Your task to perform on an android device: Show the shopping cart on amazon. Add bose soundlink to the cart on amazon, then select checkout. Image 0: 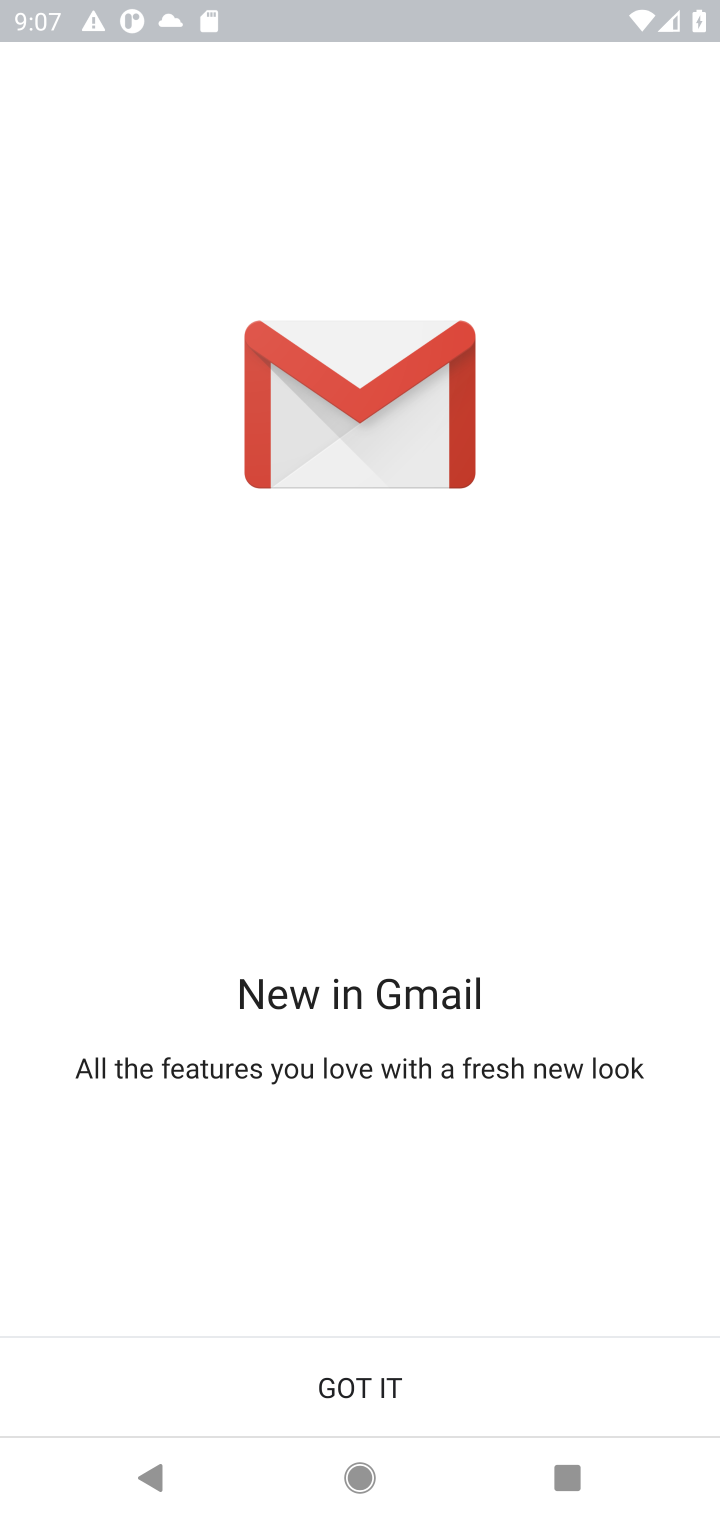
Step 0: press home button
Your task to perform on an android device: Show the shopping cart on amazon. Add bose soundlink to the cart on amazon, then select checkout. Image 1: 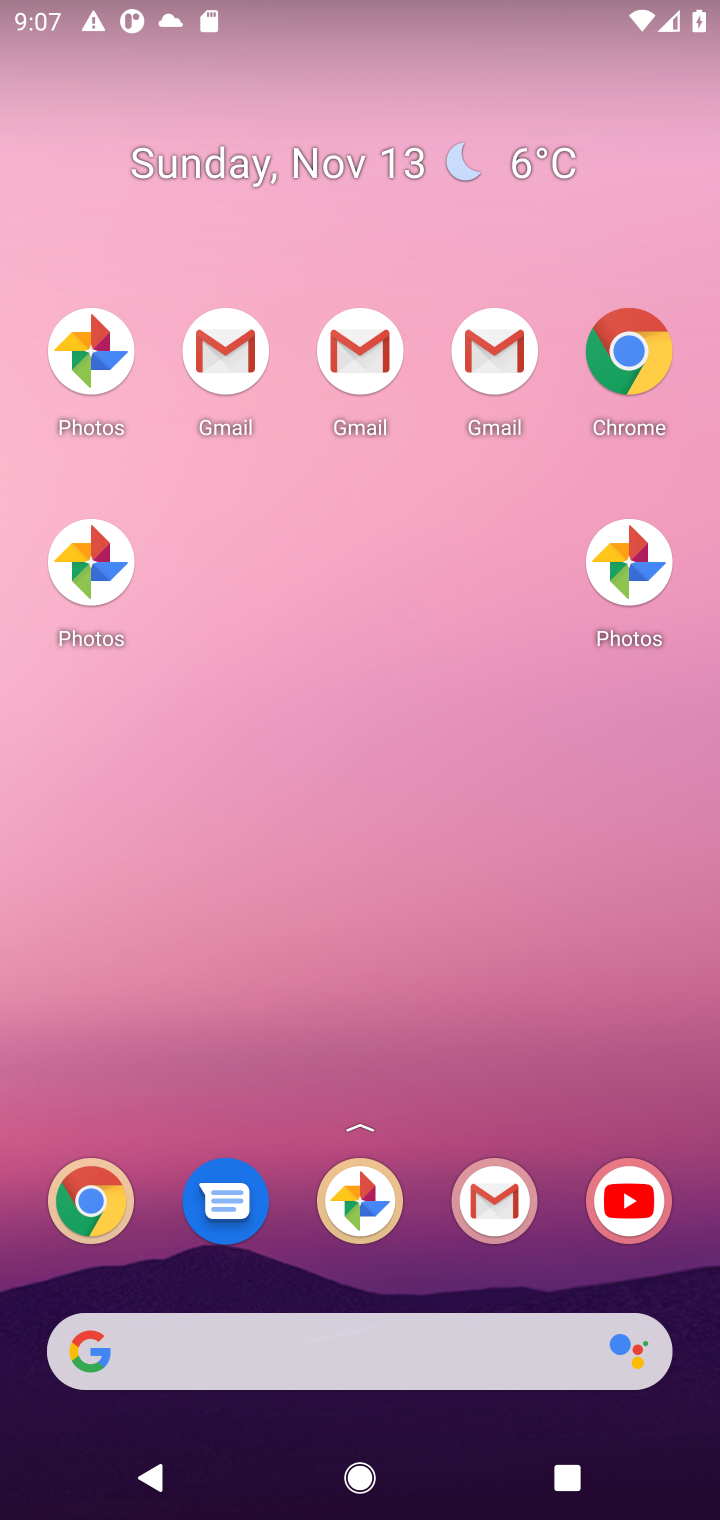
Step 1: drag from (431, 1270) to (423, 366)
Your task to perform on an android device: Show the shopping cart on amazon. Add bose soundlink to the cart on amazon, then select checkout. Image 2: 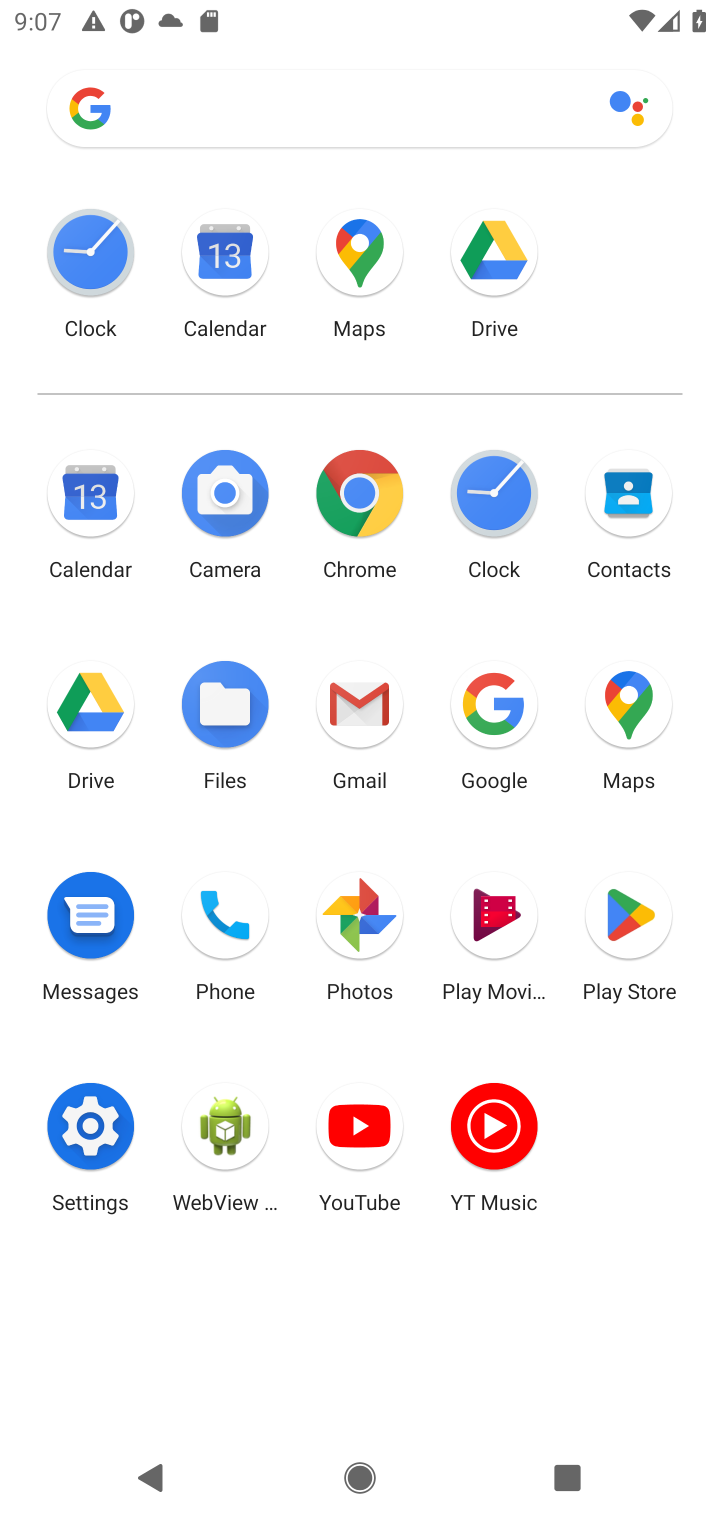
Step 2: click (348, 488)
Your task to perform on an android device: Show the shopping cart on amazon. Add bose soundlink to the cart on amazon, then select checkout. Image 3: 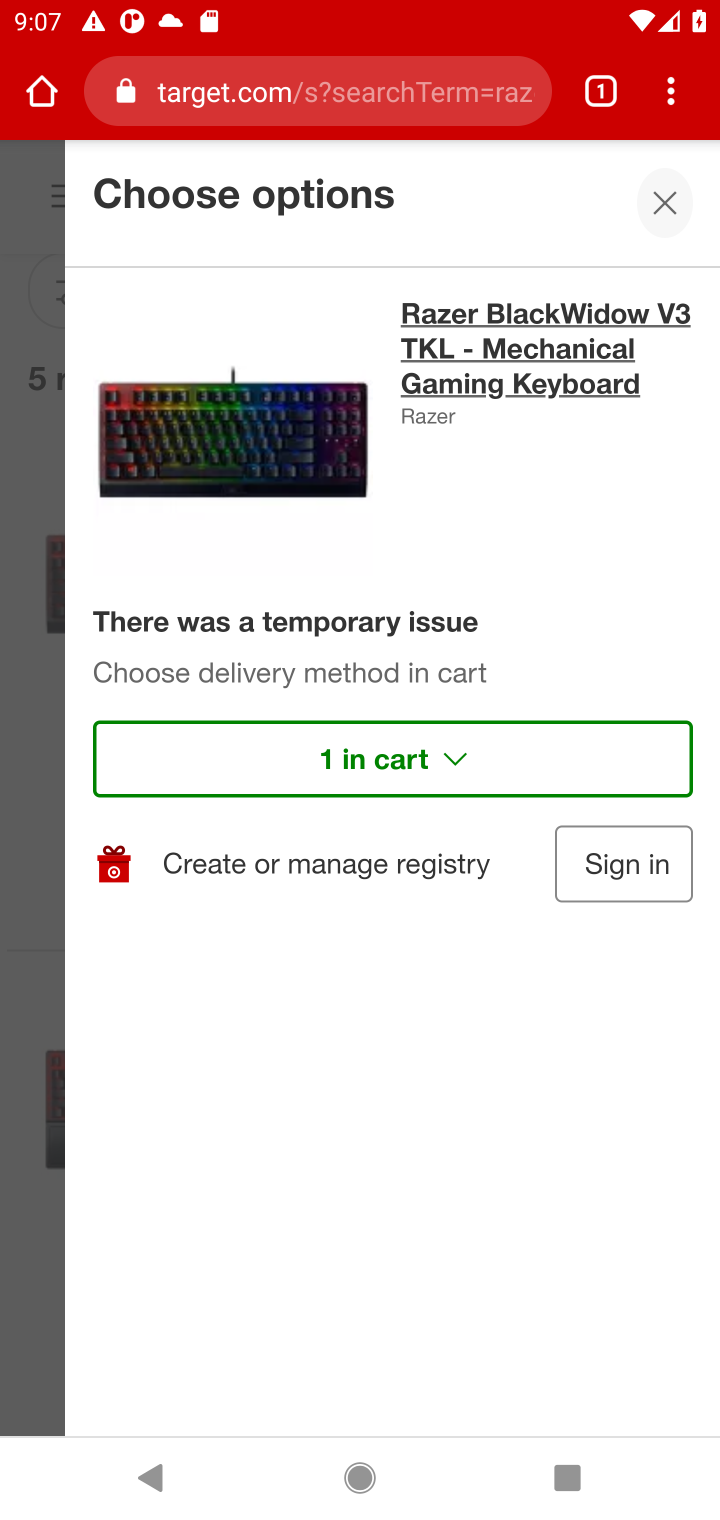
Step 3: click (367, 90)
Your task to perform on an android device: Show the shopping cart on amazon. Add bose soundlink to the cart on amazon, then select checkout. Image 4: 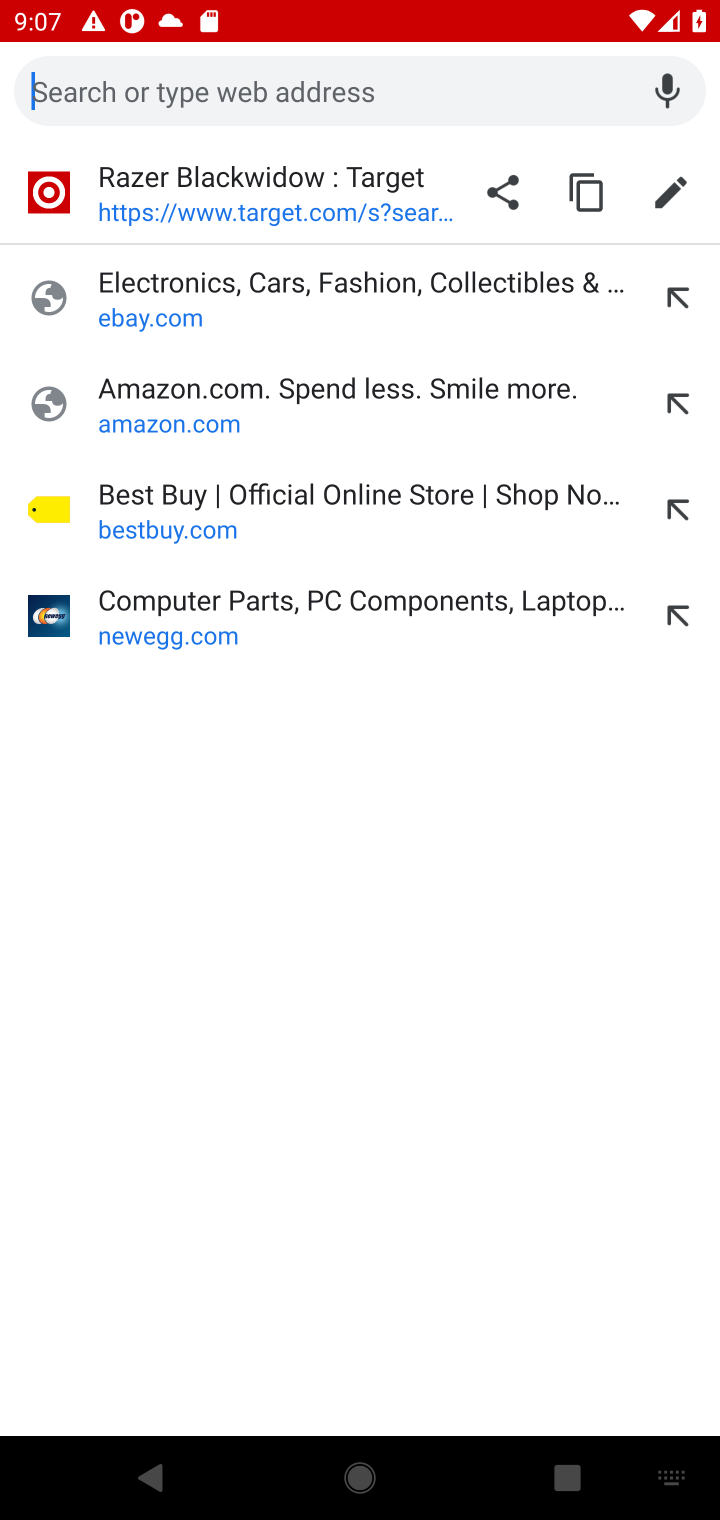
Step 4: type "amazon.com"
Your task to perform on an android device: Show the shopping cart on amazon. Add bose soundlink to the cart on amazon, then select checkout. Image 5: 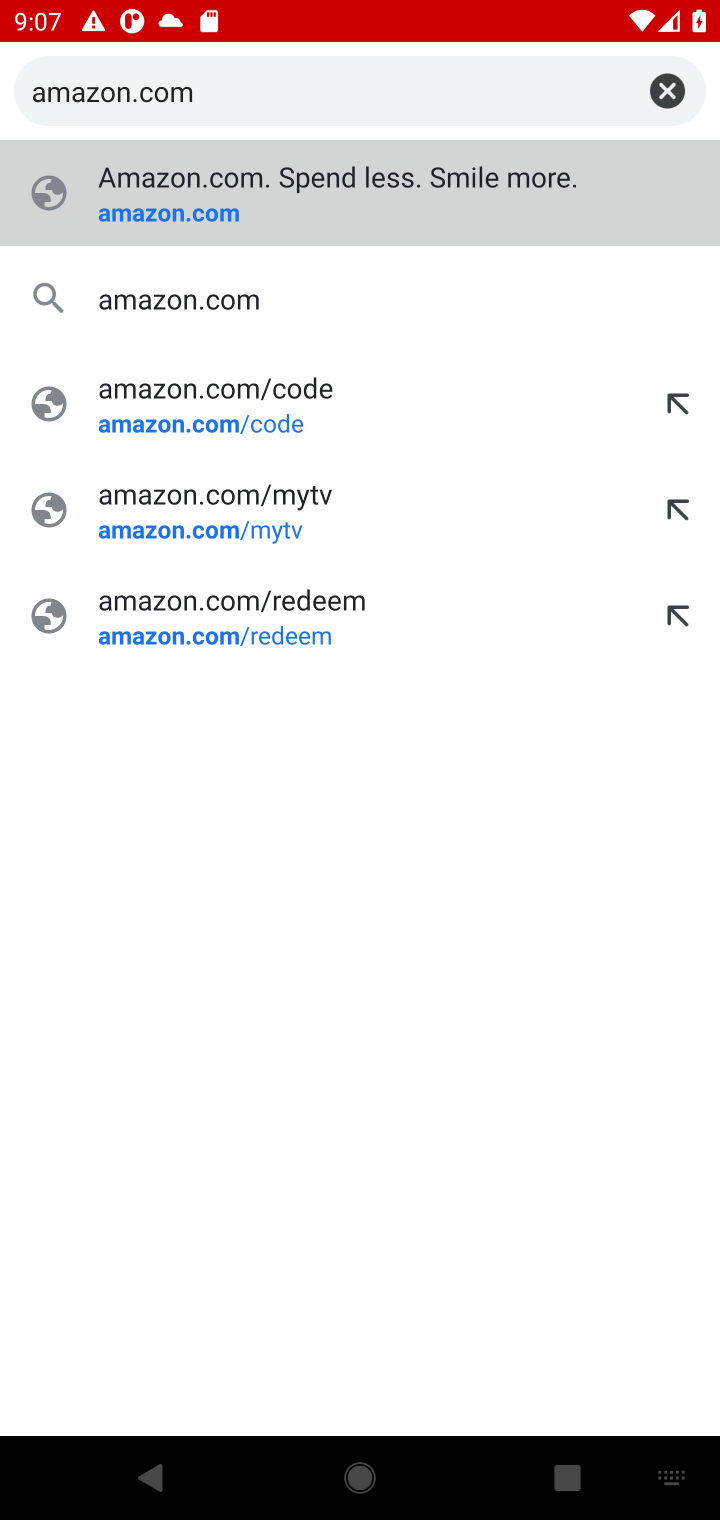
Step 5: press enter
Your task to perform on an android device: Show the shopping cart on amazon. Add bose soundlink to the cart on amazon, then select checkout. Image 6: 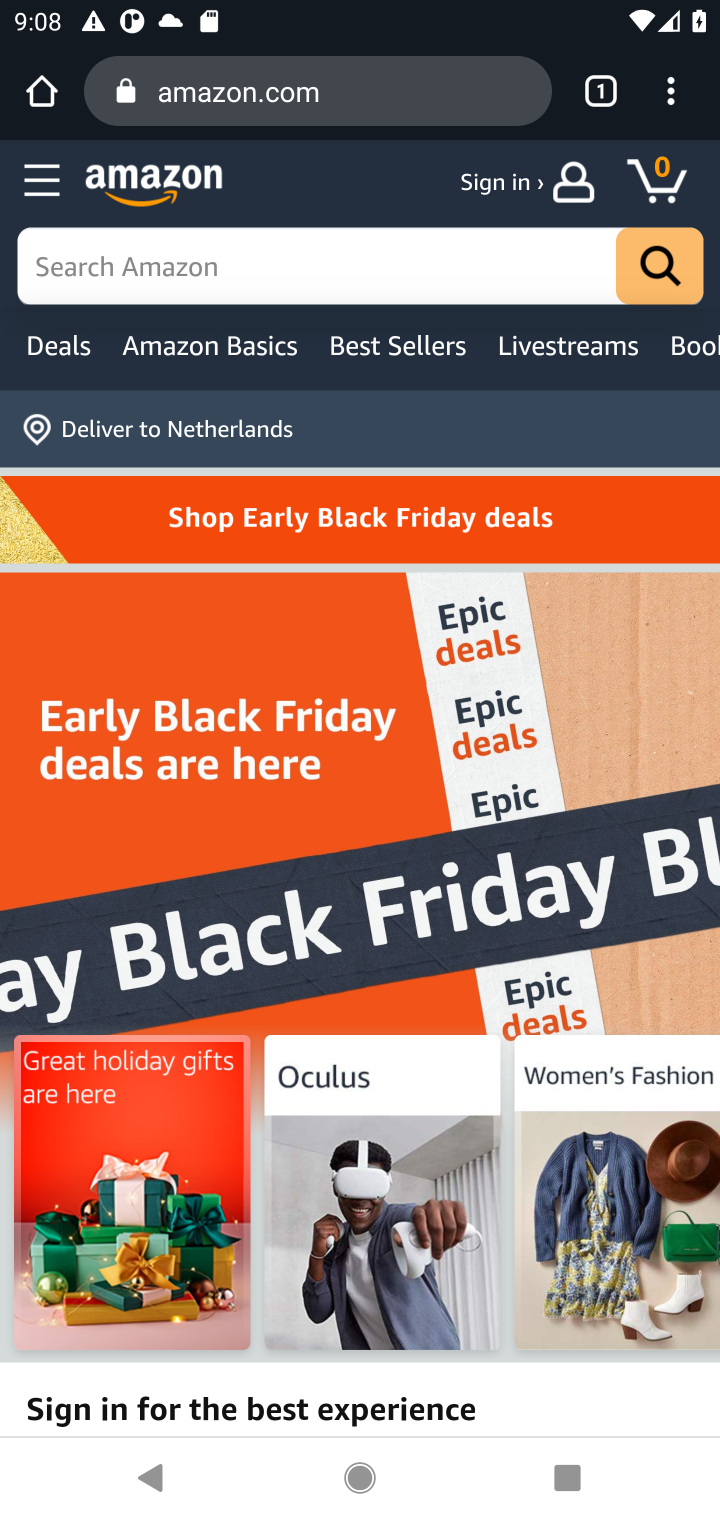
Step 6: click (494, 282)
Your task to perform on an android device: Show the shopping cart on amazon. Add bose soundlink to the cart on amazon, then select checkout. Image 7: 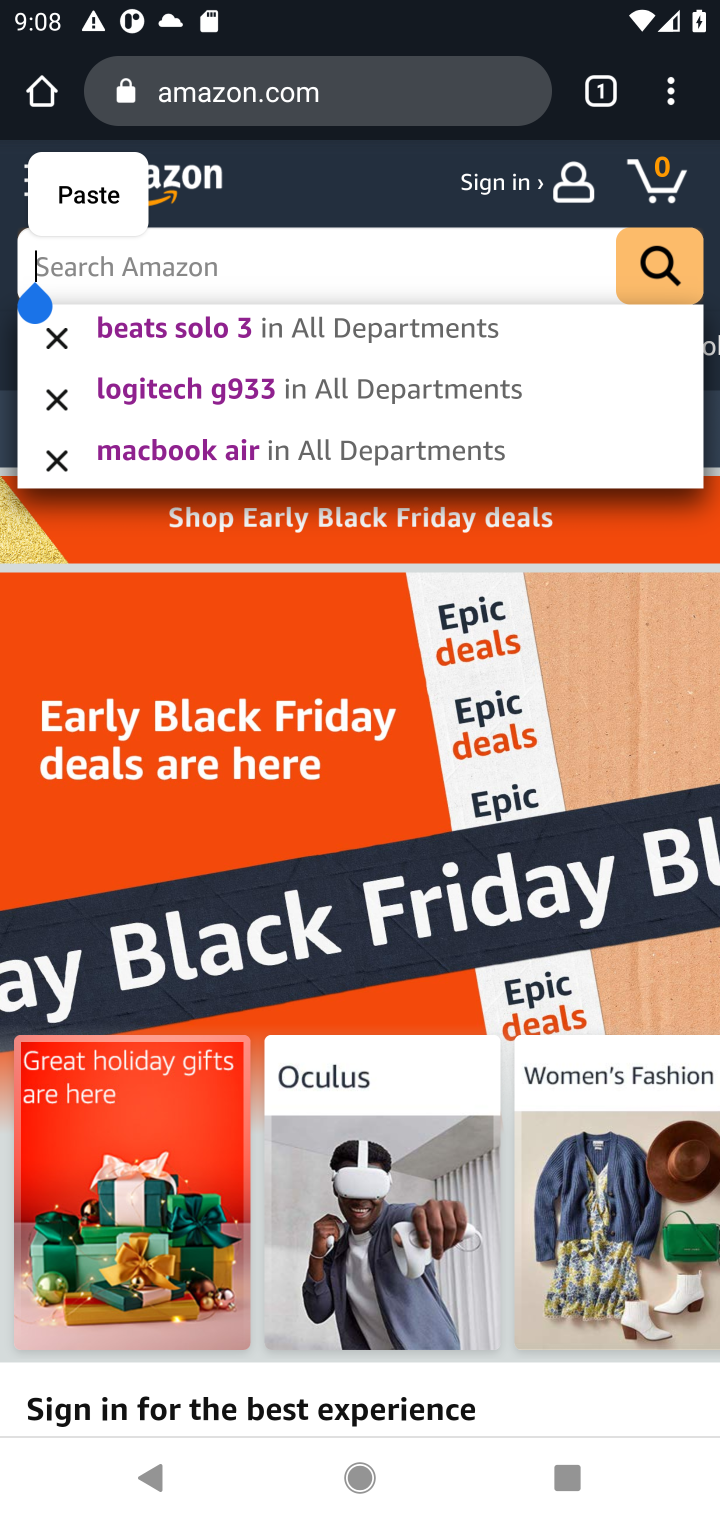
Step 7: type "bose soundlink"
Your task to perform on an android device: Show the shopping cart on amazon. Add bose soundlink to the cart on amazon, then select checkout. Image 8: 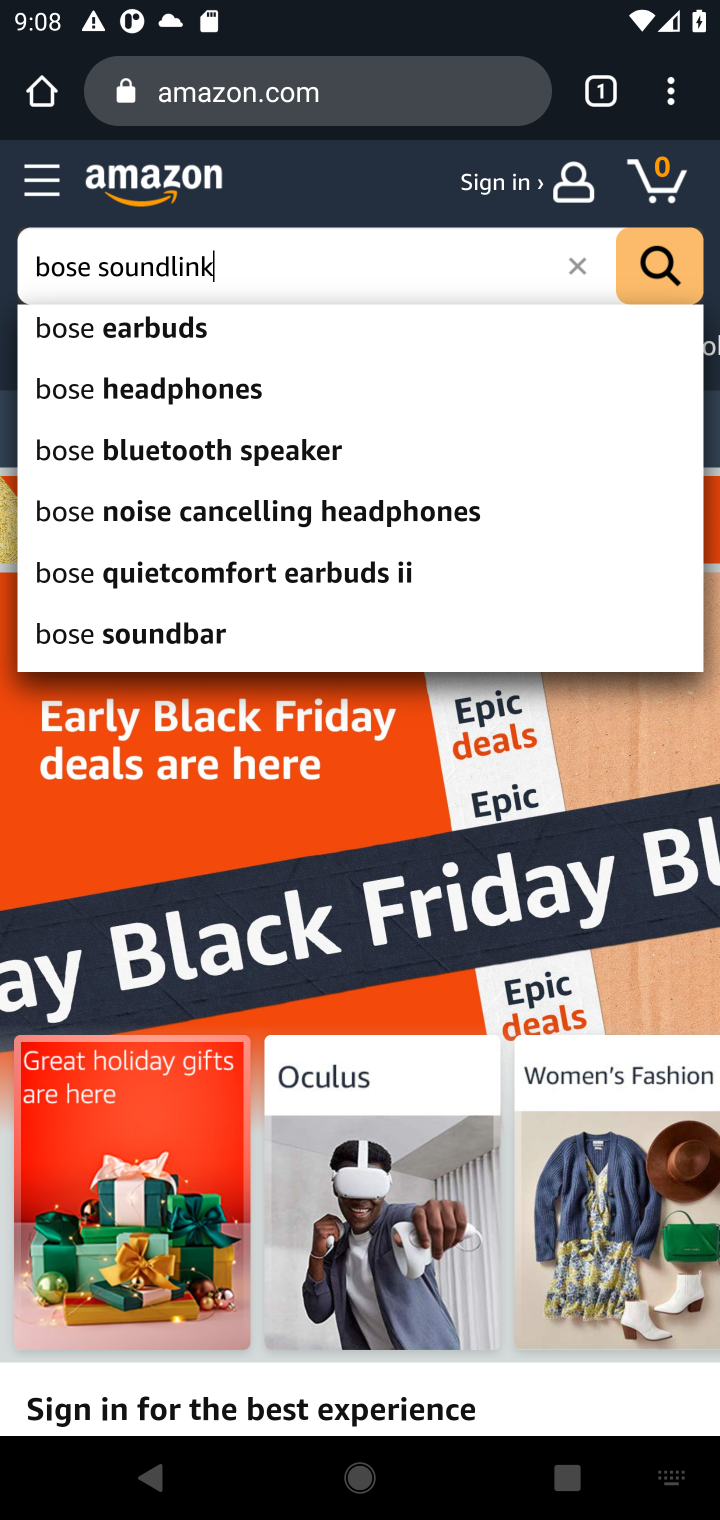
Step 8: press enter
Your task to perform on an android device: Show the shopping cart on amazon. Add bose soundlink to the cart on amazon, then select checkout. Image 9: 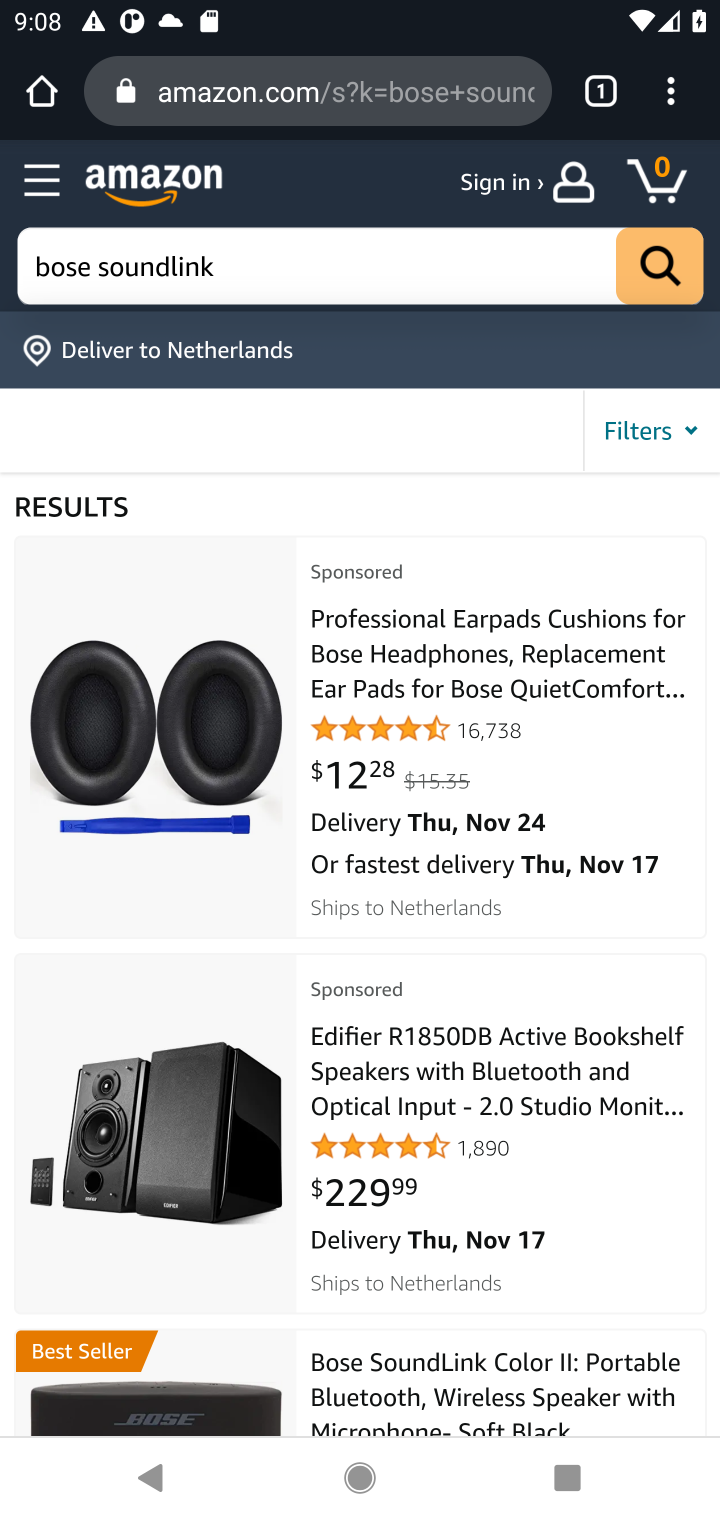
Step 9: click (666, 184)
Your task to perform on an android device: Show the shopping cart on amazon. Add bose soundlink to the cart on amazon, then select checkout. Image 10: 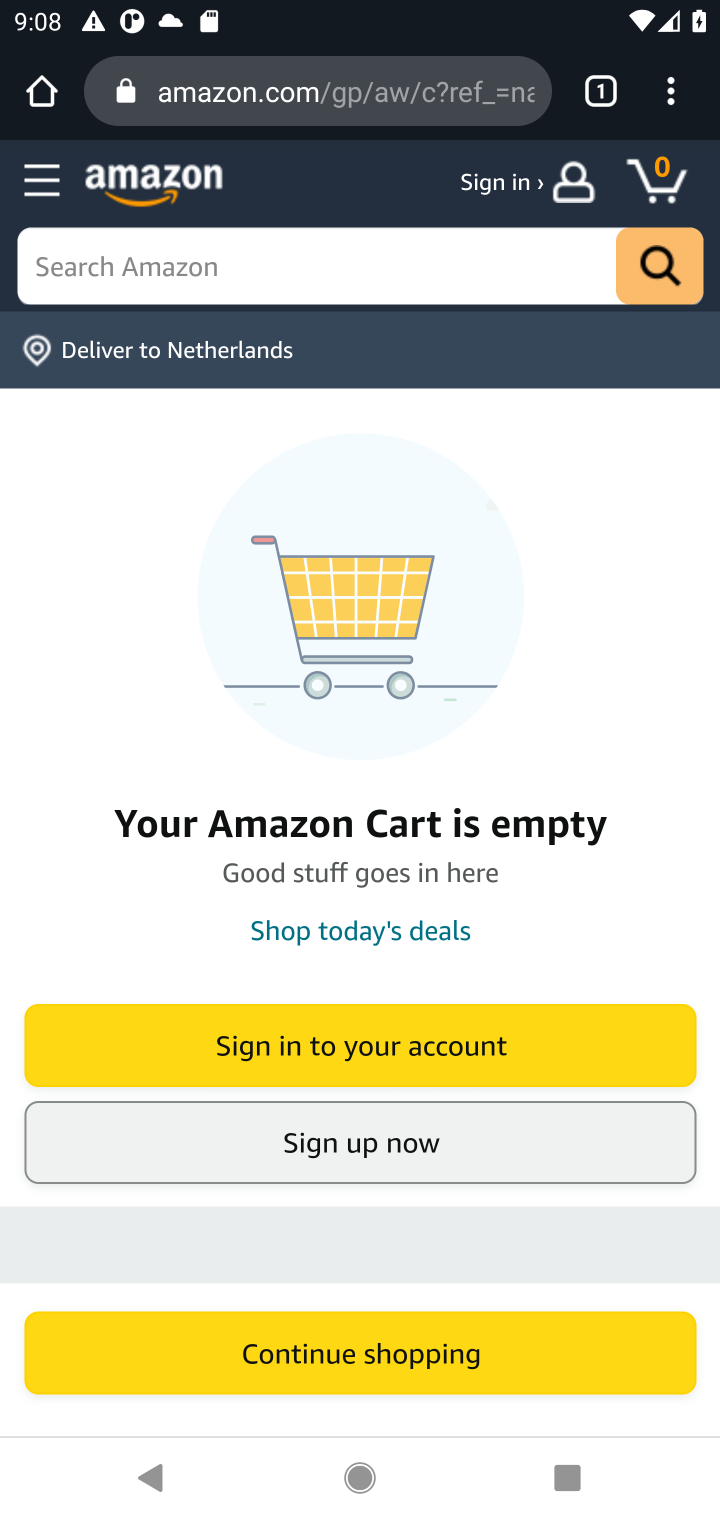
Step 10: click (464, 285)
Your task to perform on an android device: Show the shopping cart on amazon. Add bose soundlink to the cart on amazon, then select checkout. Image 11: 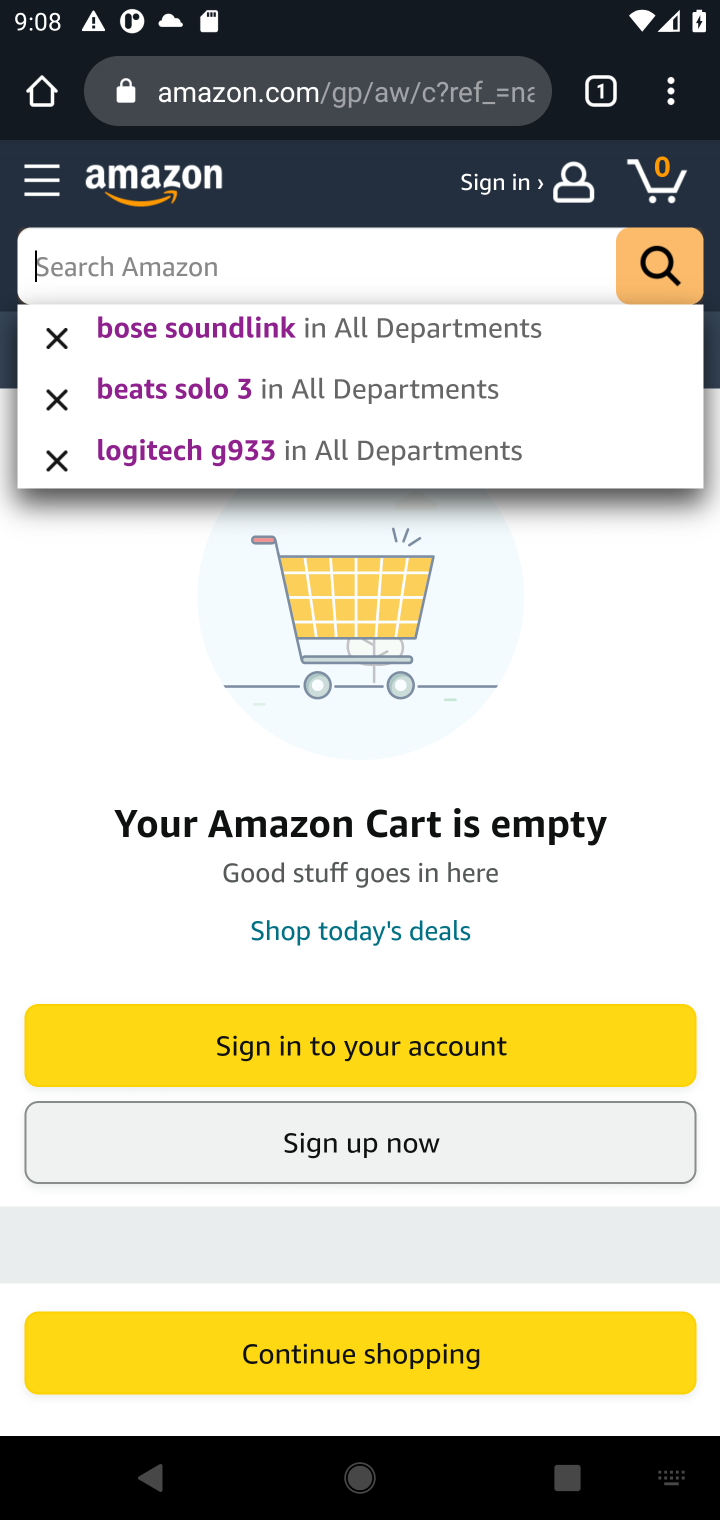
Step 11: type "bose soundlink"
Your task to perform on an android device: Show the shopping cart on amazon. Add bose soundlink to the cart on amazon, then select checkout. Image 12: 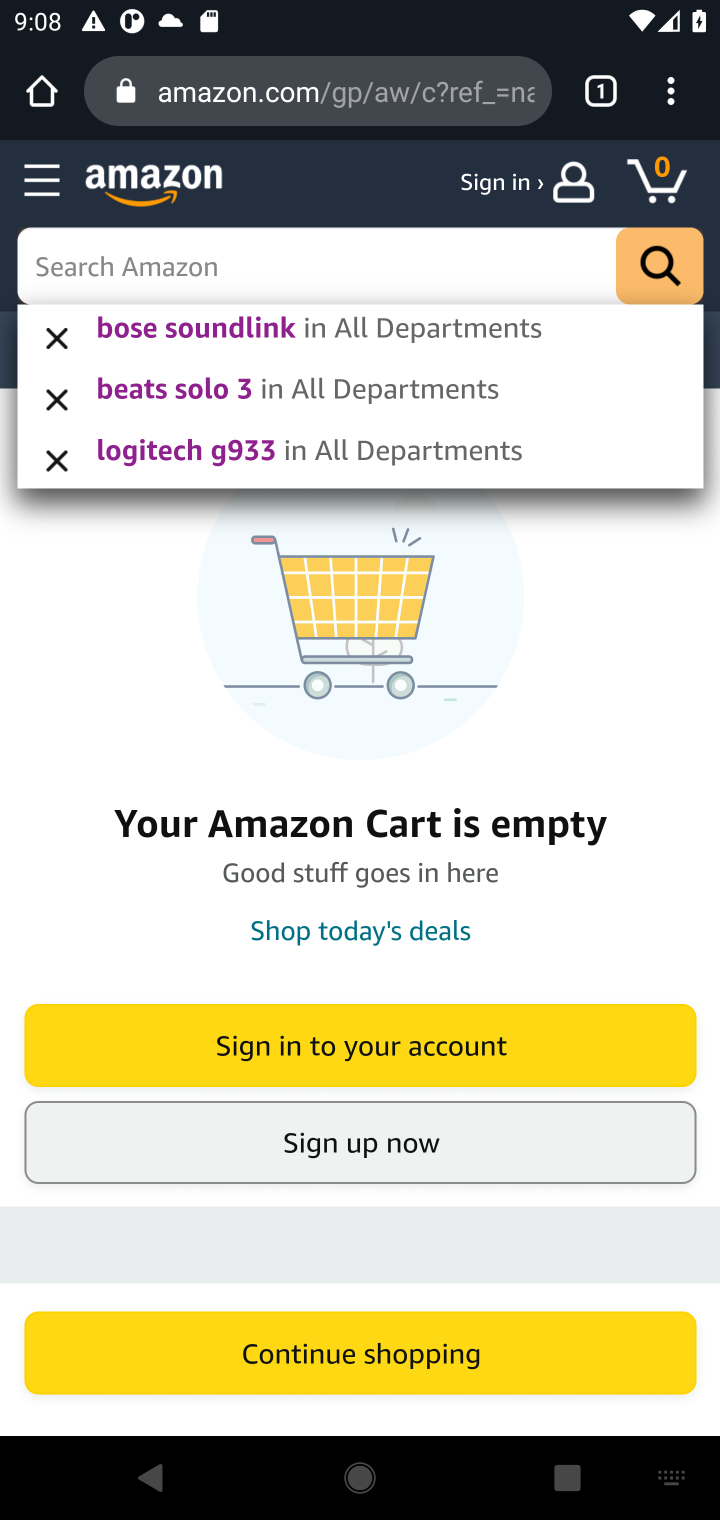
Step 12: click (689, 278)
Your task to perform on an android device: Show the shopping cart on amazon. Add bose soundlink to the cart on amazon, then select checkout. Image 13: 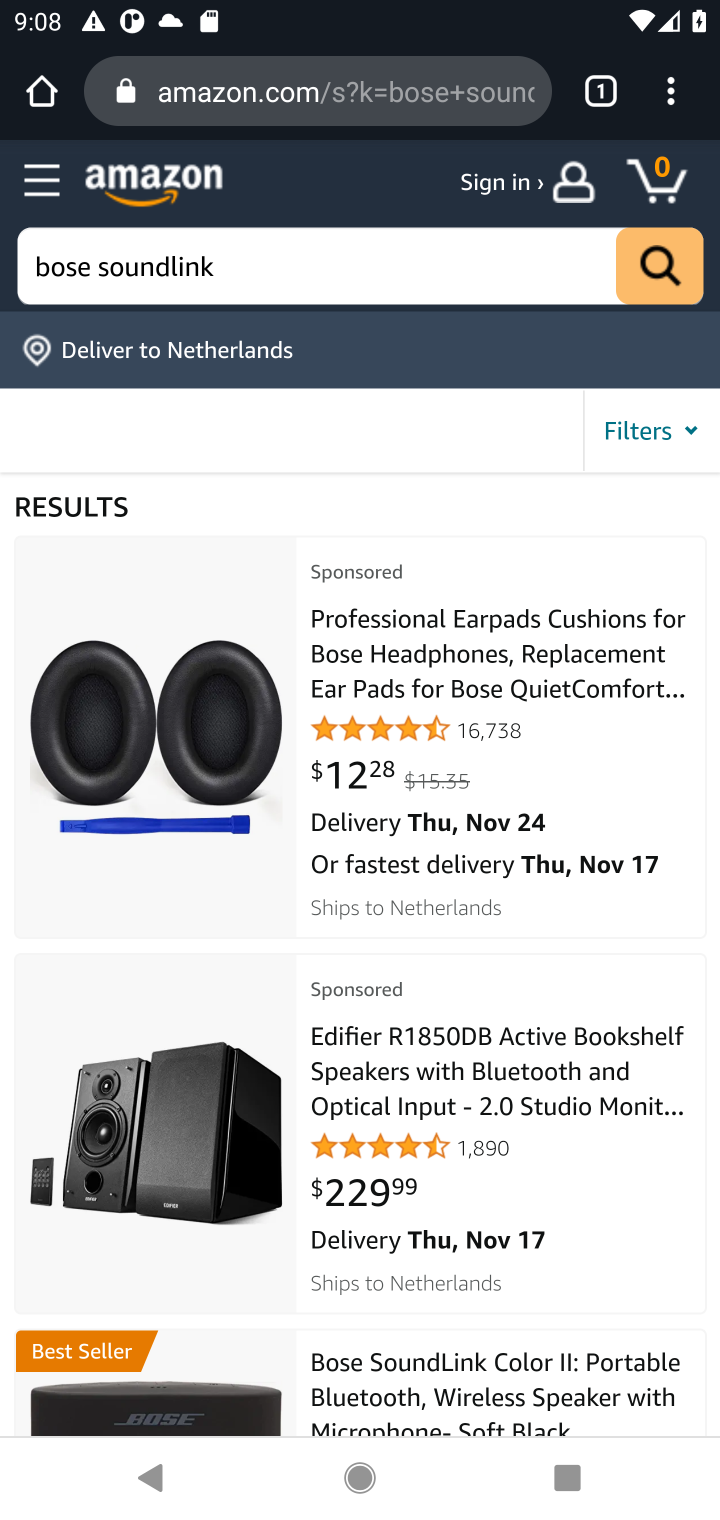
Step 13: drag from (574, 1187) to (554, 648)
Your task to perform on an android device: Show the shopping cart on amazon. Add bose soundlink to the cart on amazon, then select checkout. Image 14: 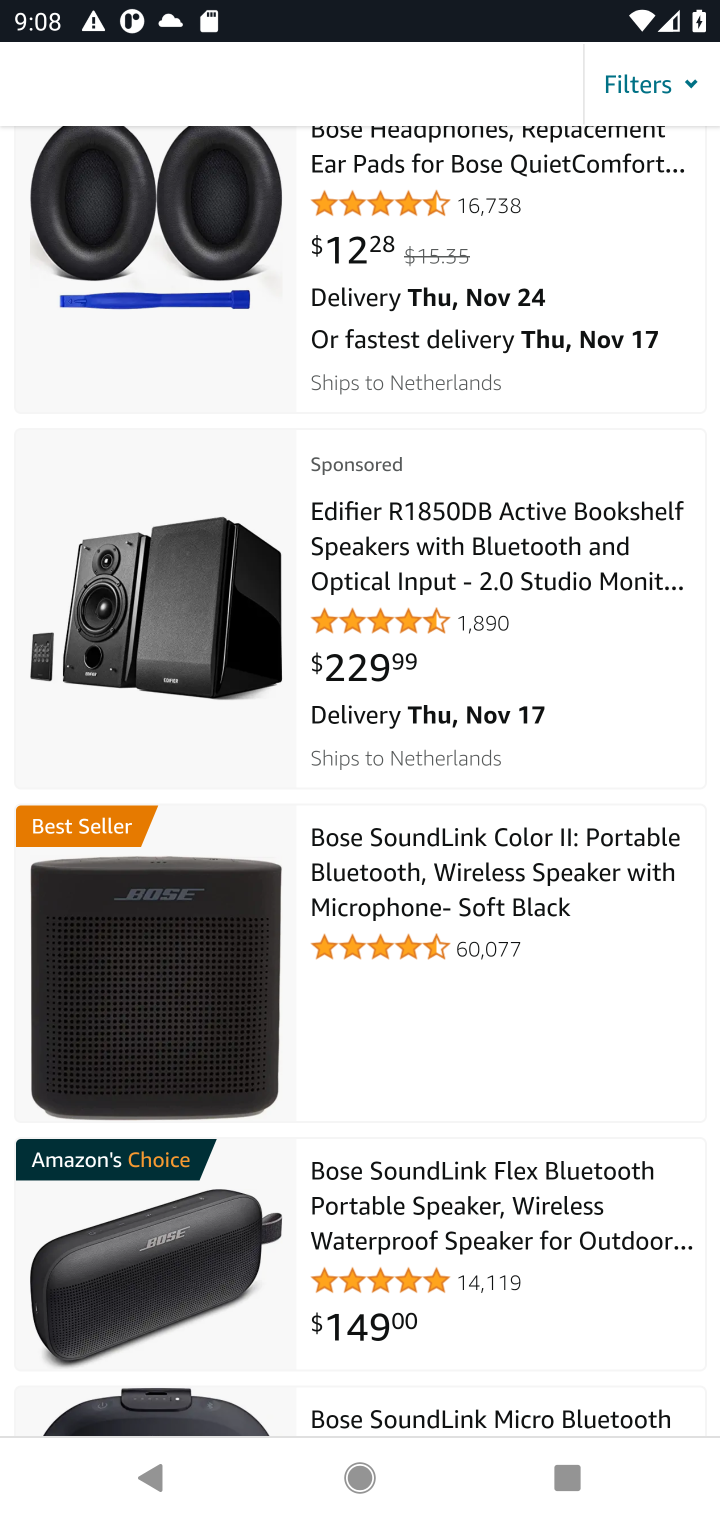
Step 14: click (444, 878)
Your task to perform on an android device: Show the shopping cart on amazon. Add bose soundlink to the cart on amazon, then select checkout. Image 15: 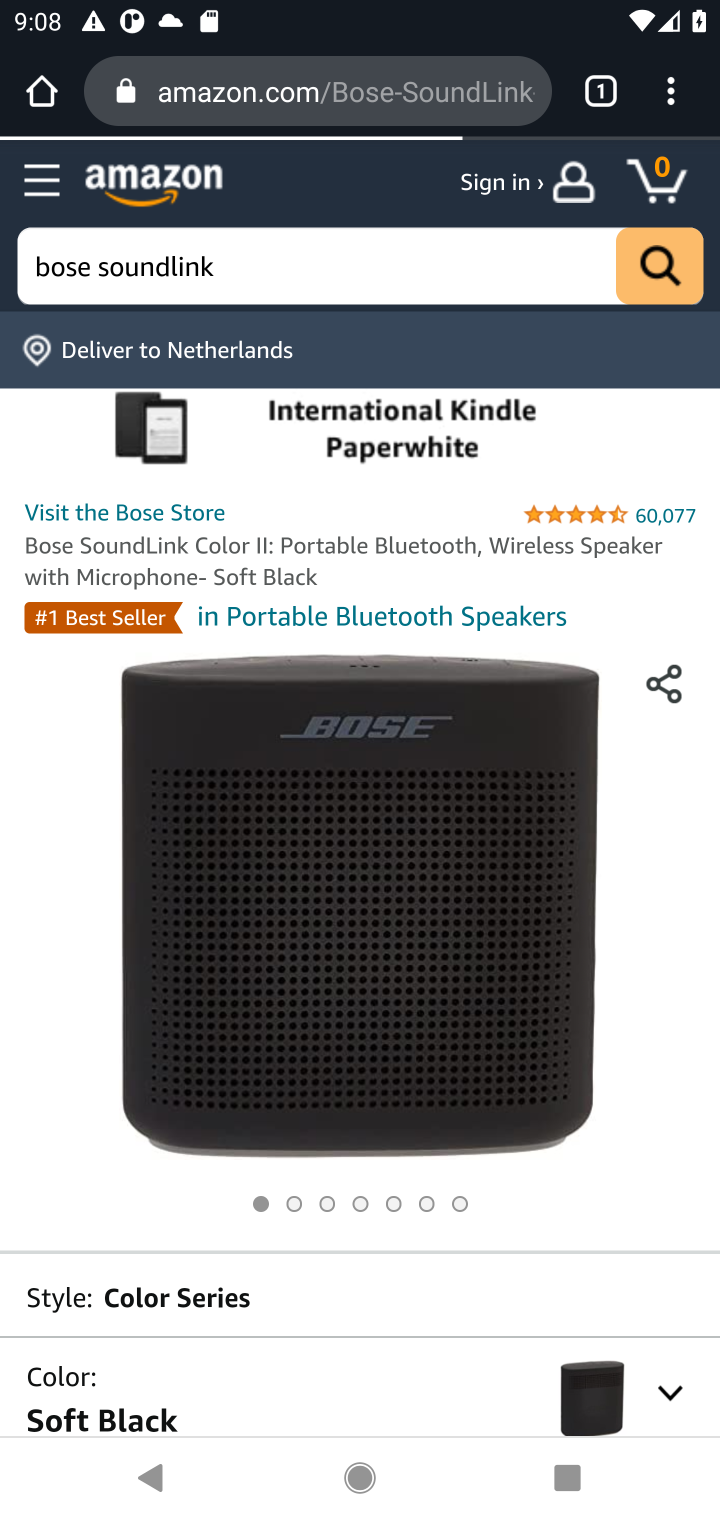
Step 15: task complete